Your task to perform on an android device: turn on javascript in the chrome app Image 0: 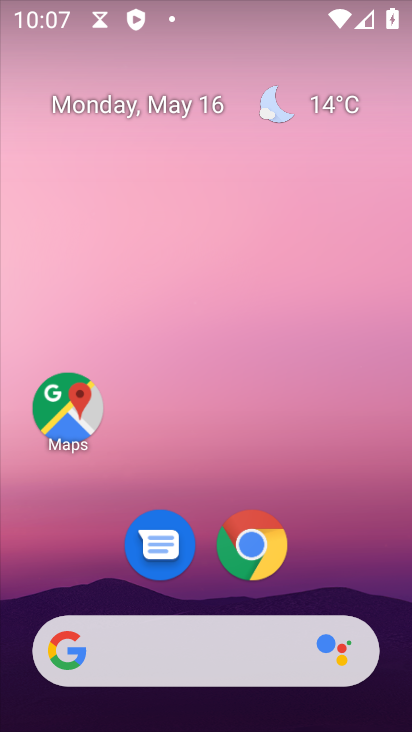
Step 0: click (249, 566)
Your task to perform on an android device: turn on javascript in the chrome app Image 1: 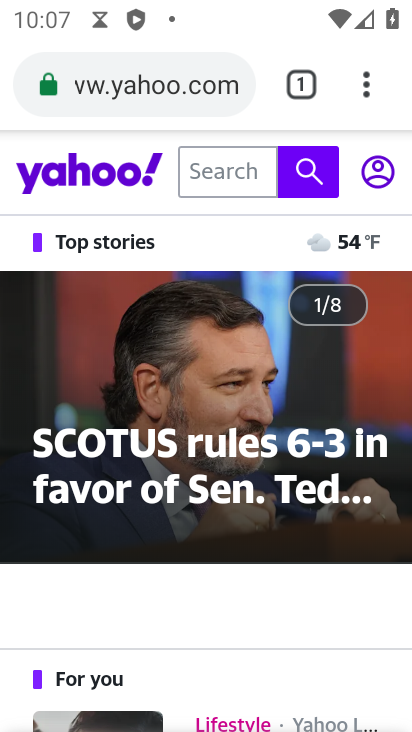
Step 1: click (369, 90)
Your task to perform on an android device: turn on javascript in the chrome app Image 2: 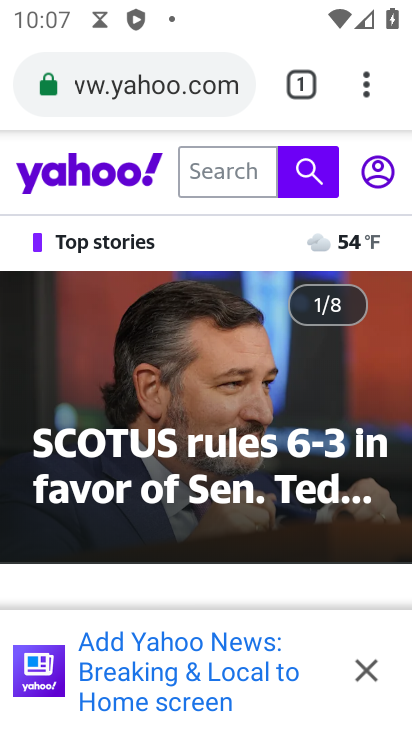
Step 2: drag from (360, 101) to (174, 598)
Your task to perform on an android device: turn on javascript in the chrome app Image 3: 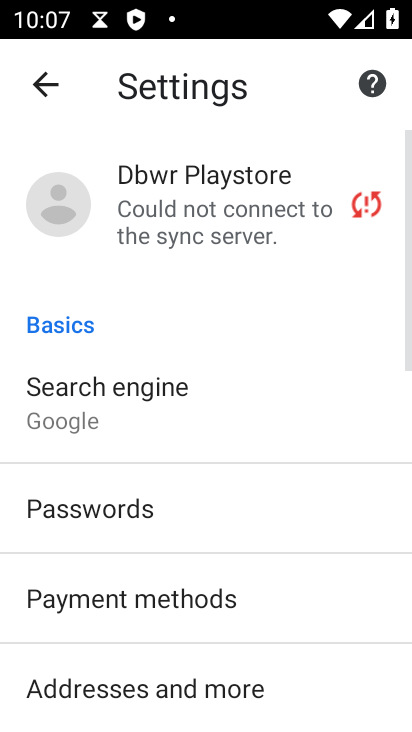
Step 3: drag from (231, 696) to (255, 238)
Your task to perform on an android device: turn on javascript in the chrome app Image 4: 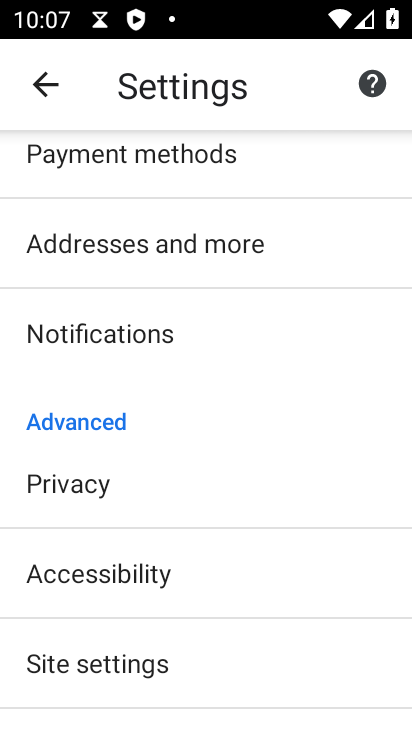
Step 4: drag from (210, 680) to (255, 206)
Your task to perform on an android device: turn on javascript in the chrome app Image 5: 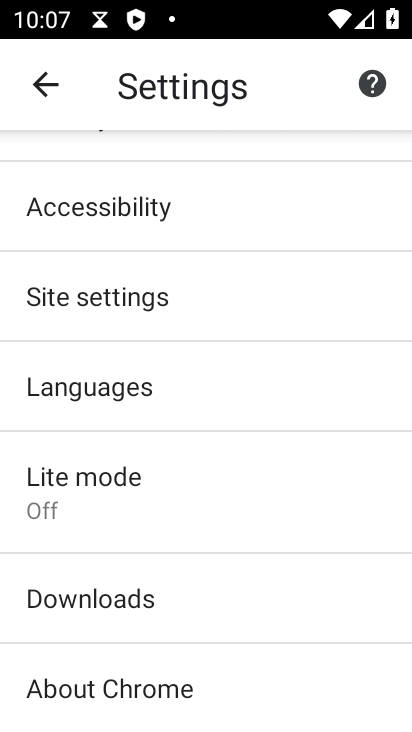
Step 5: drag from (233, 701) to (265, 267)
Your task to perform on an android device: turn on javascript in the chrome app Image 6: 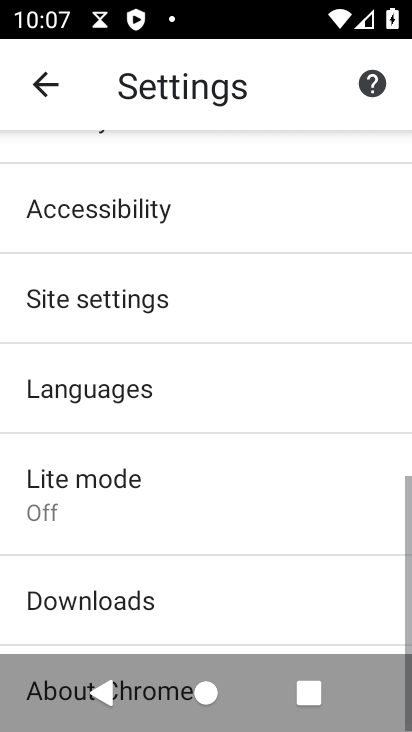
Step 6: drag from (235, 477) to (272, 263)
Your task to perform on an android device: turn on javascript in the chrome app Image 7: 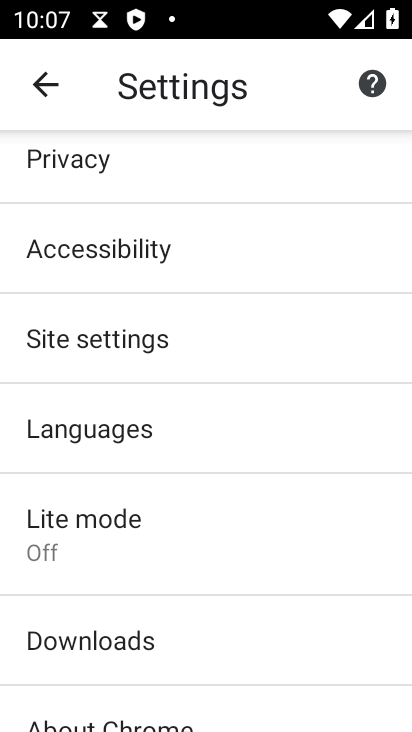
Step 7: click (125, 347)
Your task to perform on an android device: turn on javascript in the chrome app Image 8: 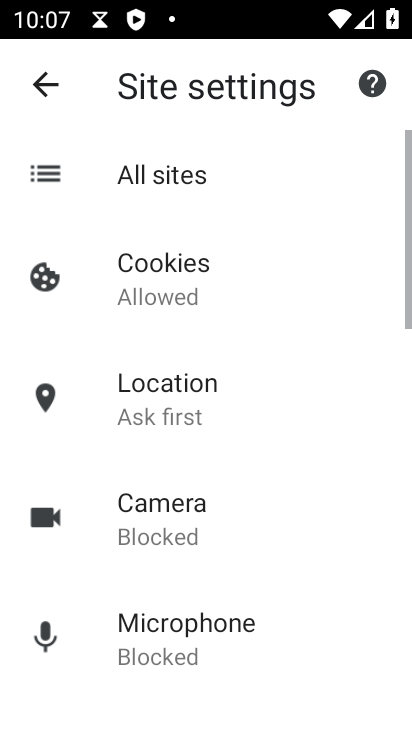
Step 8: drag from (308, 666) to (313, 263)
Your task to perform on an android device: turn on javascript in the chrome app Image 9: 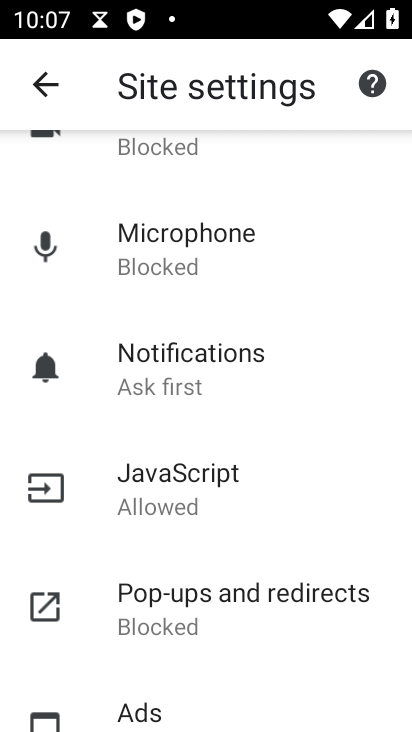
Step 9: click (199, 491)
Your task to perform on an android device: turn on javascript in the chrome app Image 10: 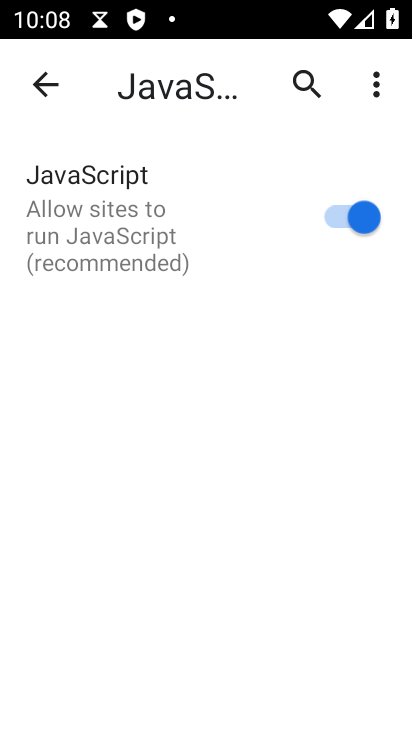
Step 10: task complete